Your task to perform on an android device: find snoozed emails in the gmail app Image 0: 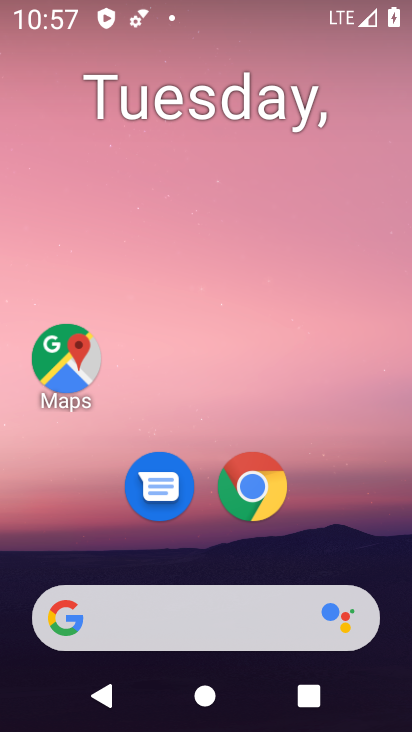
Step 0: drag from (365, 552) to (359, 232)
Your task to perform on an android device: find snoozed emails in the gmail app Image 1: 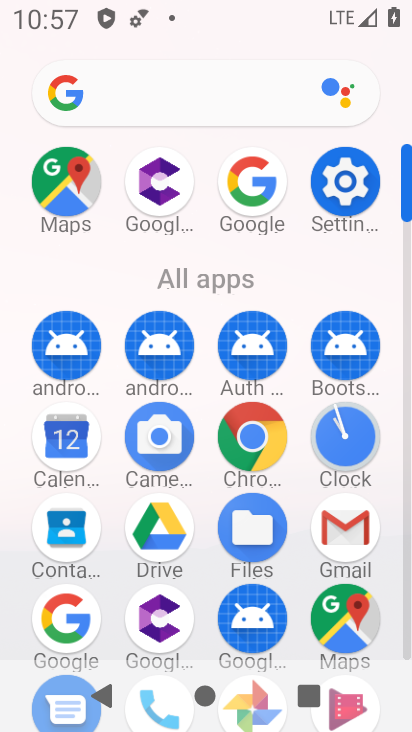
Step 1: click (367, 524)
Your task to perform on an android device: find snoozed emails in the gmail app Image 2: 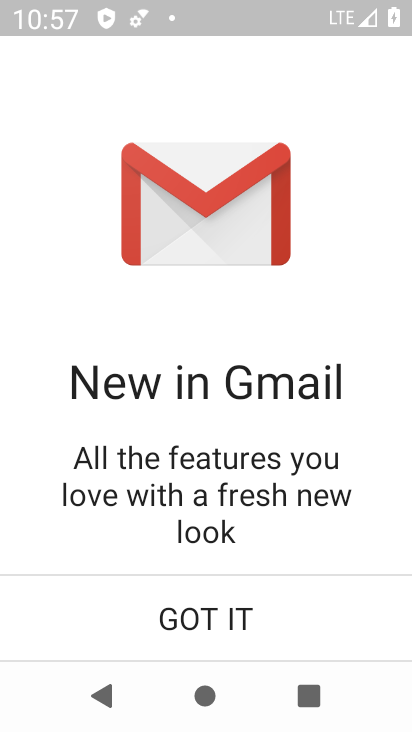
Step 2: click (308, 614)
Your task to perform on an android device: find snoozed emails in the gmail app Image 3: 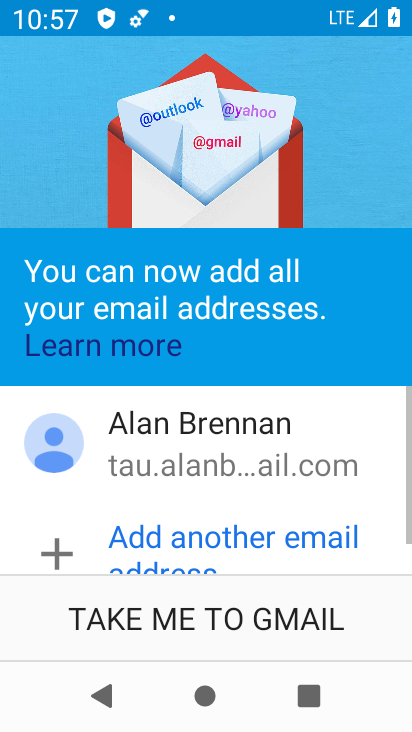
Step 3: click (308, 614)
Your task to perform on an android device: find snoozed emails in the gmail app Image 4: 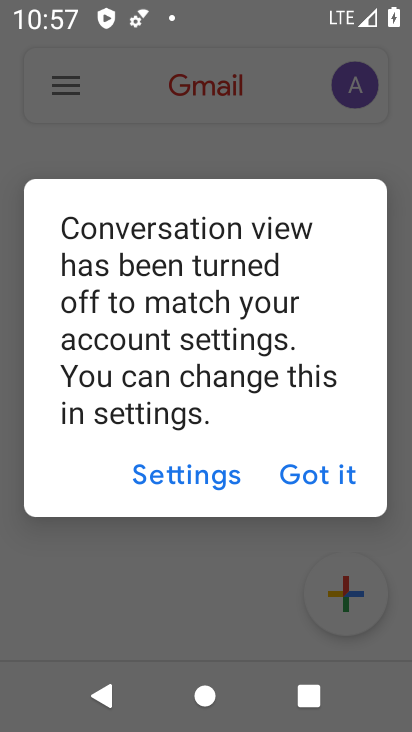
Step 4: click (345, 486)
Your task to perform on an android device: find snoozed emails in the gmail app Image 5: 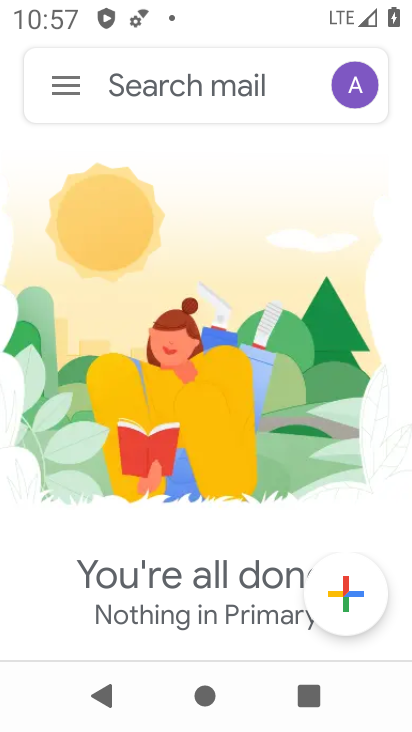
Step 5: click (61, 91)
Your task to perform on an android device: find snoozed emails in the gmail app Image 6: 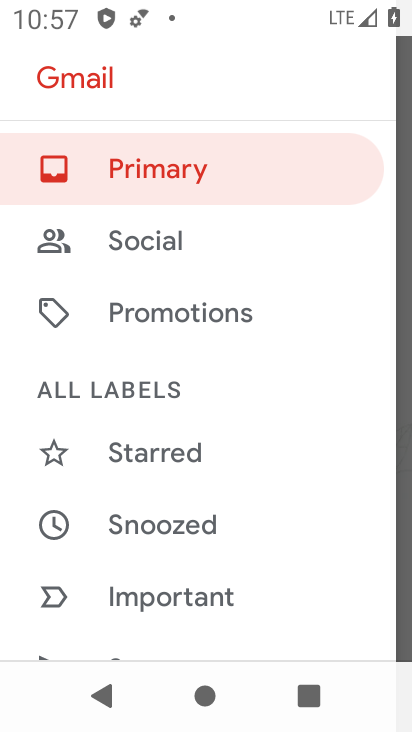
Step 6: drag from (310, 429) to (309, 350)
Your task to perform on an android device: find snoozed emails in the gmail app Image 7: 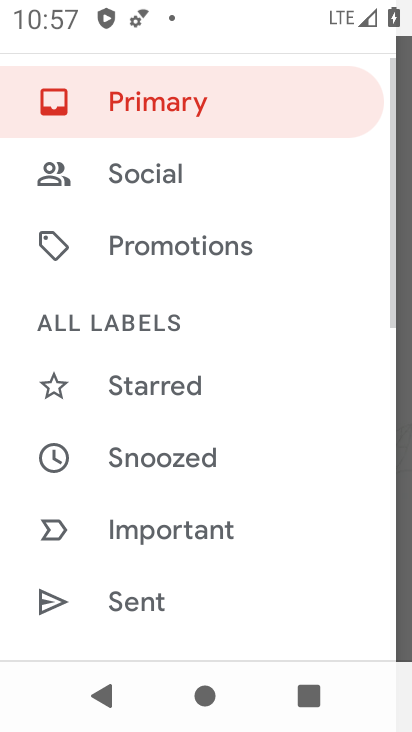
Step 7: drag from (311, 457) to (310, 358)
Your task to perform on an android device: find snoozed emails in the gmail app Image 8: 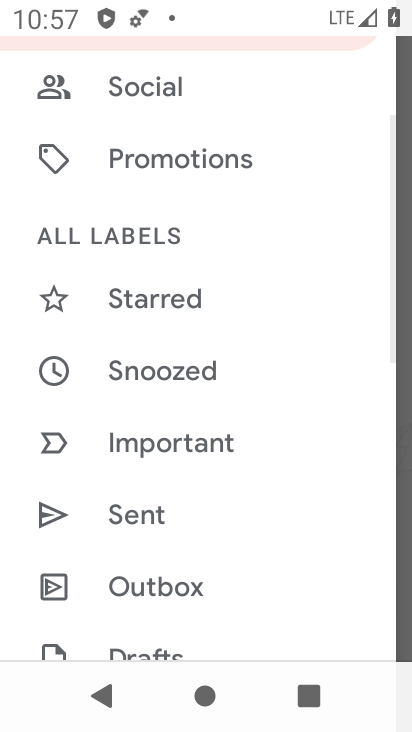
Step 8: drag from (326, 485) to (318, 384)
Your task to perform on an android device: find snoozed emails in the gmail app Image 9: 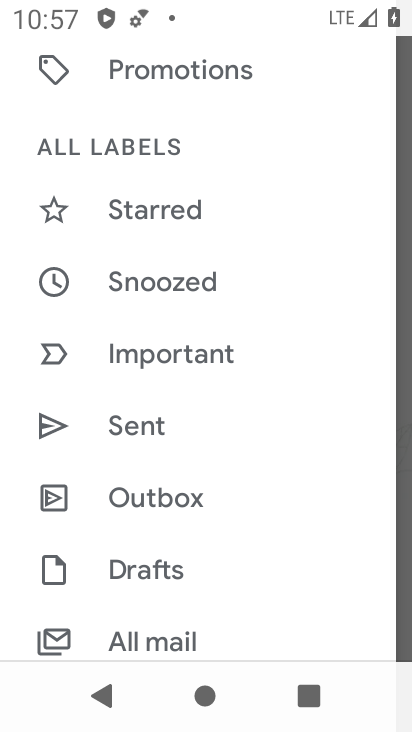
Step 9: click (251, 290)
Your task to perform on an android device: find snoozed emails in the gmail app Image 10: 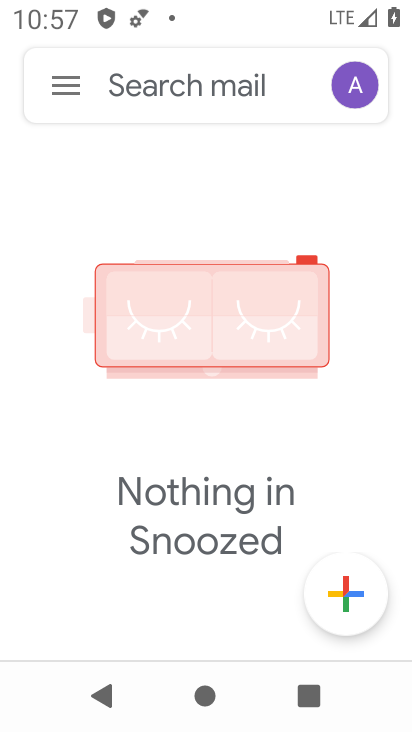
Step 10: task complete